Your task to perform on an android device: add a contact in the contacts app Image 0: 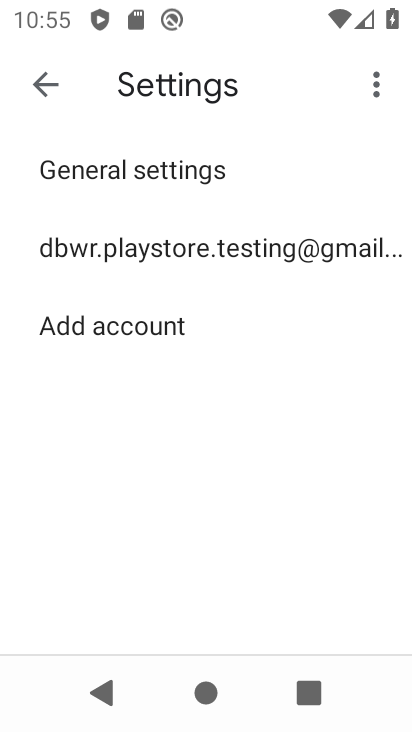
Step 0: press home button
Your task to perform on an android device: add a contact in the contacts app Image 1: 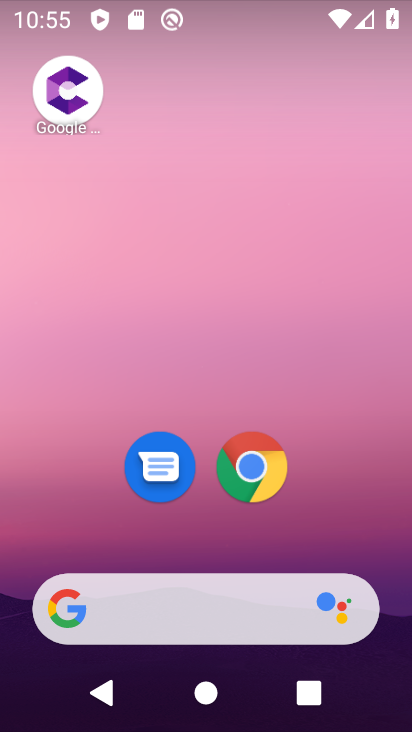
Step 1: drag from (190, 532) to (300, 23)
Your task to perform on an android device: add a contact in the contacts app Image 2: 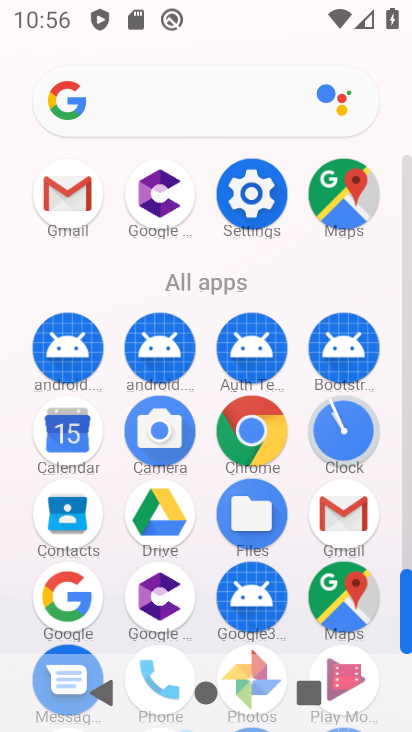
Step 2: click (61, 512)
Your task to perform on an android device: add a contact in the contacts app Image 3: 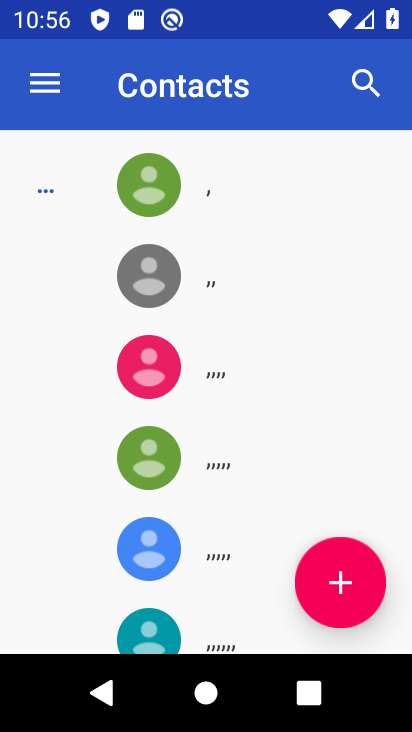
Step 3: click (348, 587)
Your task to perform on an android device: add a contact in the contacts app Image 4: 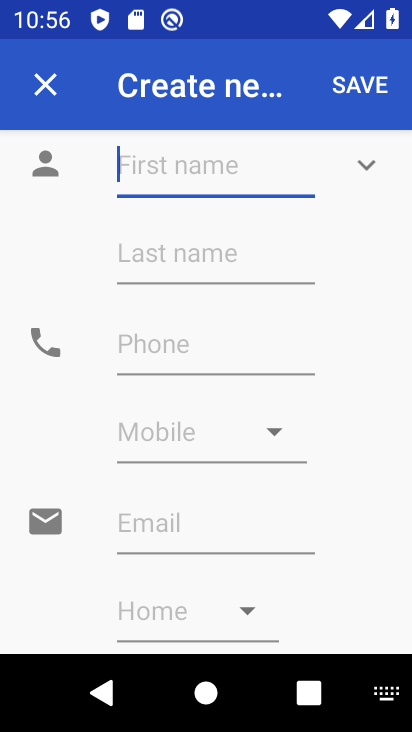
Step 4: type "vvcgfst"
Your task to perform on an android device: add a contact in the contacts app Image 5: 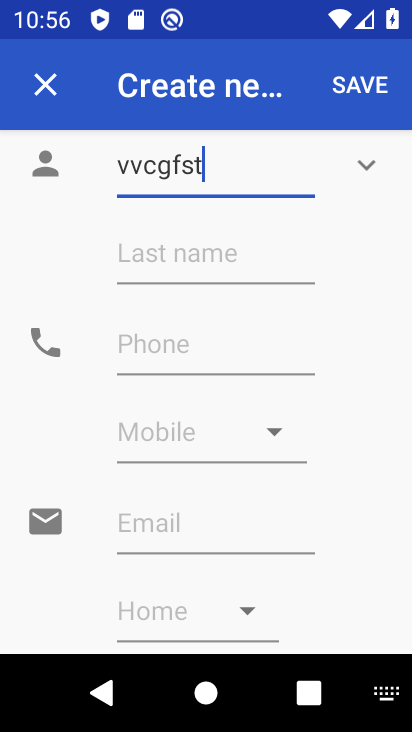
Step 5: click (370, 90)
Your task to perform on an android device: add a contact in the contacts app Image 6: 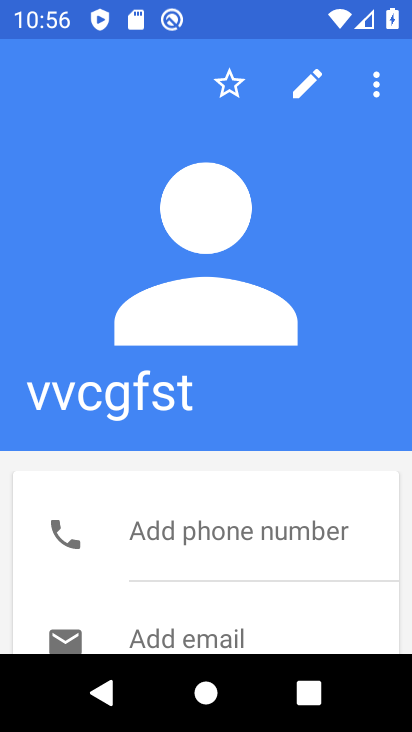
Step 6: task complete